Your task to perform on an android device: Open Amazon Image 0: 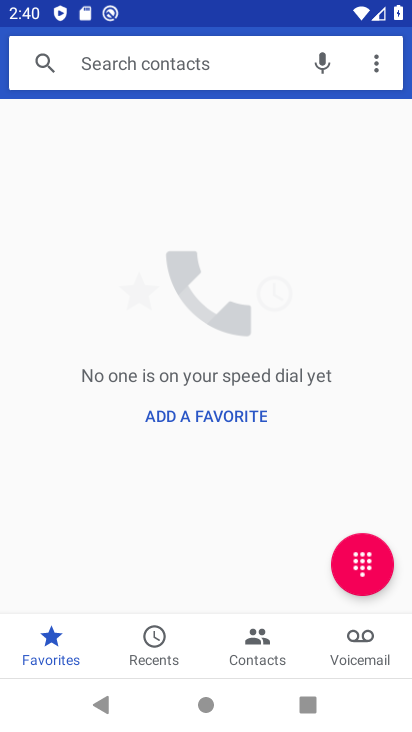
Step 0: press back button
Your task to perform on an android device: Open Amazon Image 1: 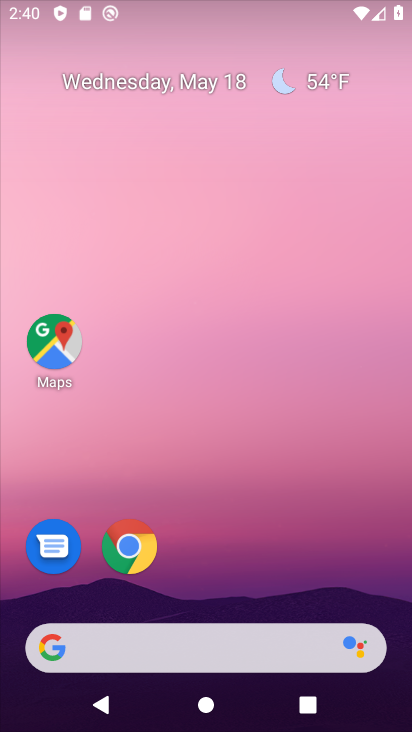
Step 1: drag from (313, 629) to (244, 142)
Your task to perform on an android device: Open Amazon Image 2: 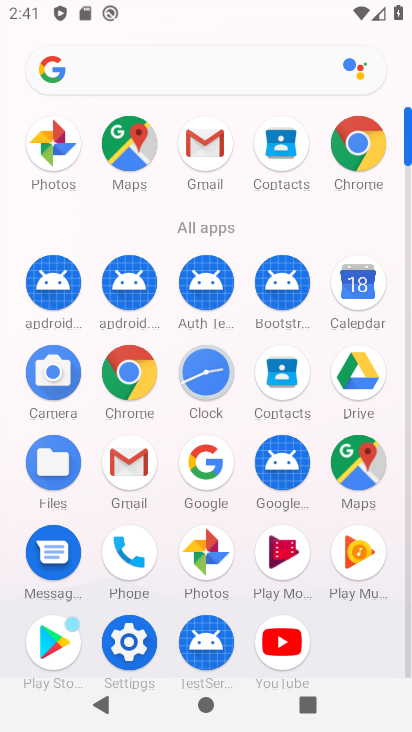
Step 2: click (347, 136)
Your task to perform on an android device: Open Amazon Image 3: 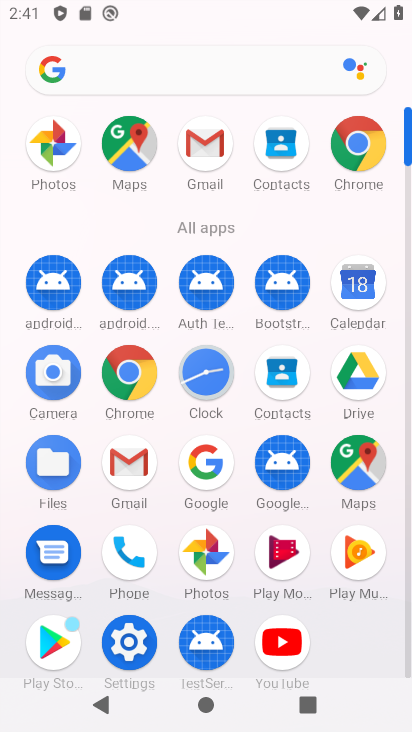
Step 3: click (346, 132)
Your task to perform on an android device: Open Amazon Image 4: 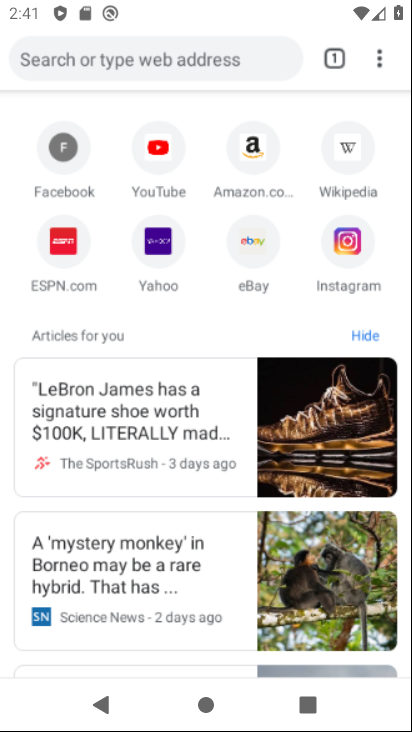
Step 4: click (346, 132)
Your task to perform on an android device: Open Amazon Image 5: 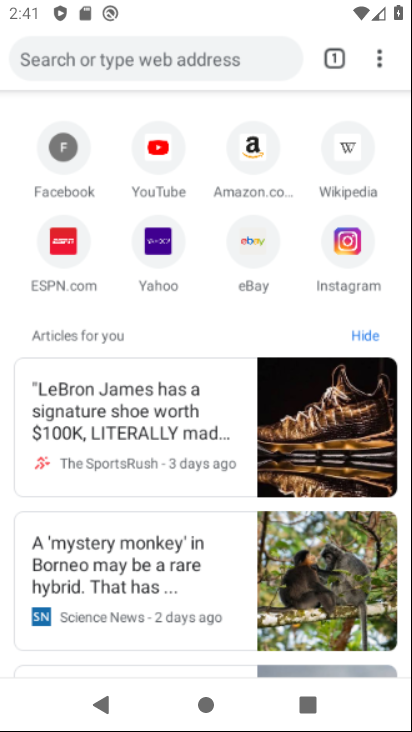
Step 5: click (346, 132)
Your task to perform on an android device: Open Amazon Image 6: 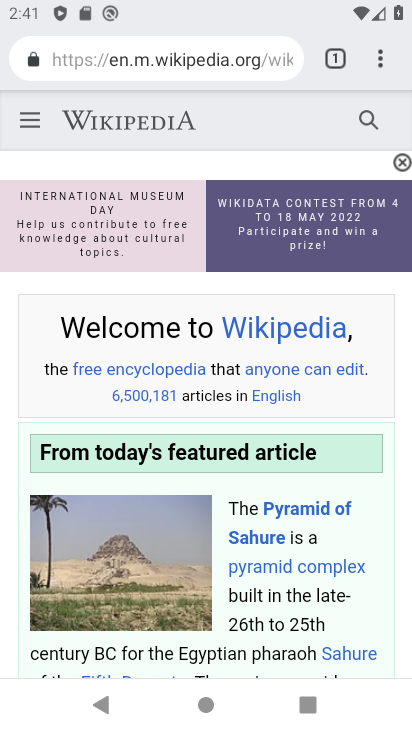
Step 6: drag from (381, 57) to (169, 118)
Your task to perform on an android device: Open Amazon Image 7: 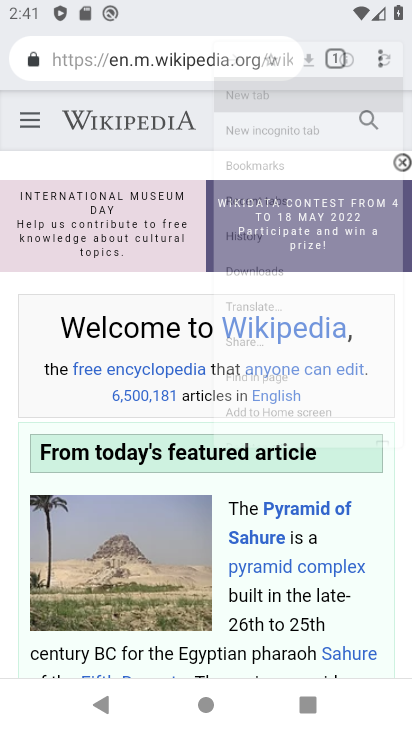
Step 7: click (179, 118)
Your task to perform on an android device: Open Amazon Image 8: 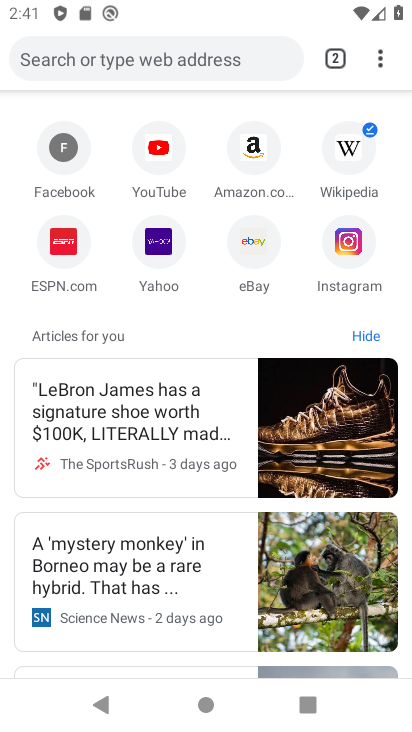
Step 8: click (252, 162)
Your task to perform on an android device: Open Amazon Image 9: 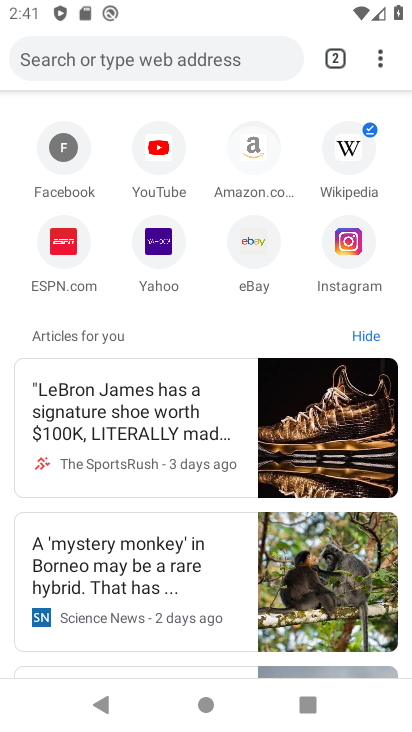
Step 9: click (252, 162)
Your task to perform on an android device: Open Amazon Image 10: 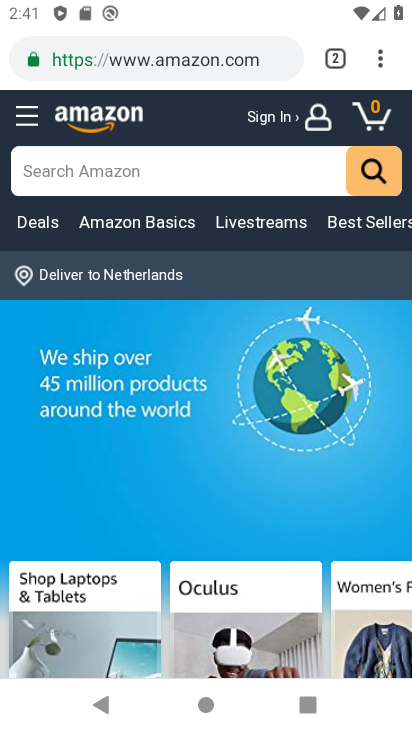
Step 10: task complete